Your task to perform on an android device: change text size in settings app Image 0: 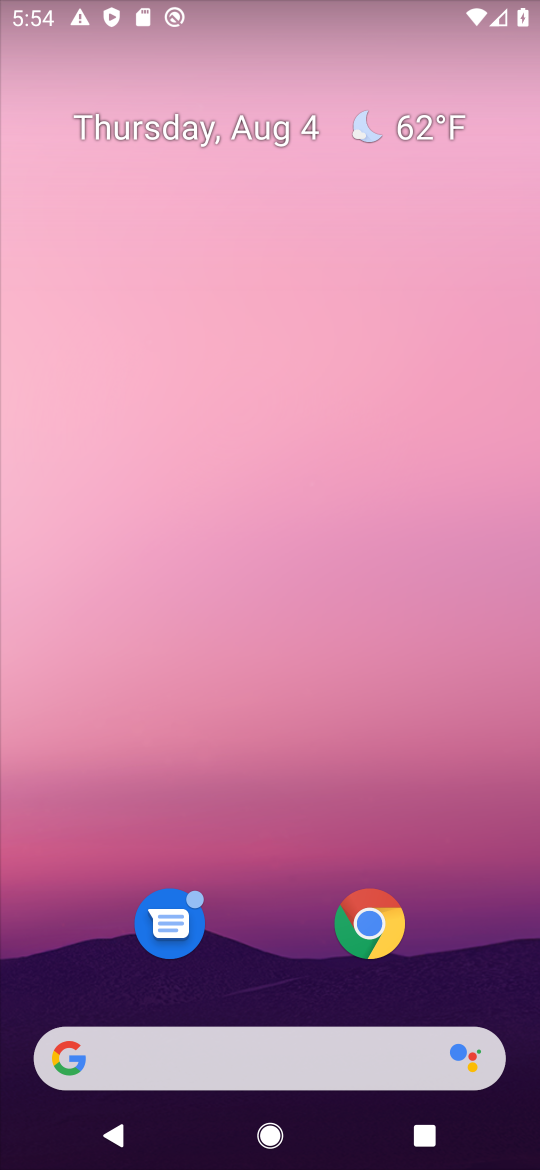
Step 0: drag from (506, 961) to (390, 461)
Your task to perform on an android device: change text size in settings app Image 1: 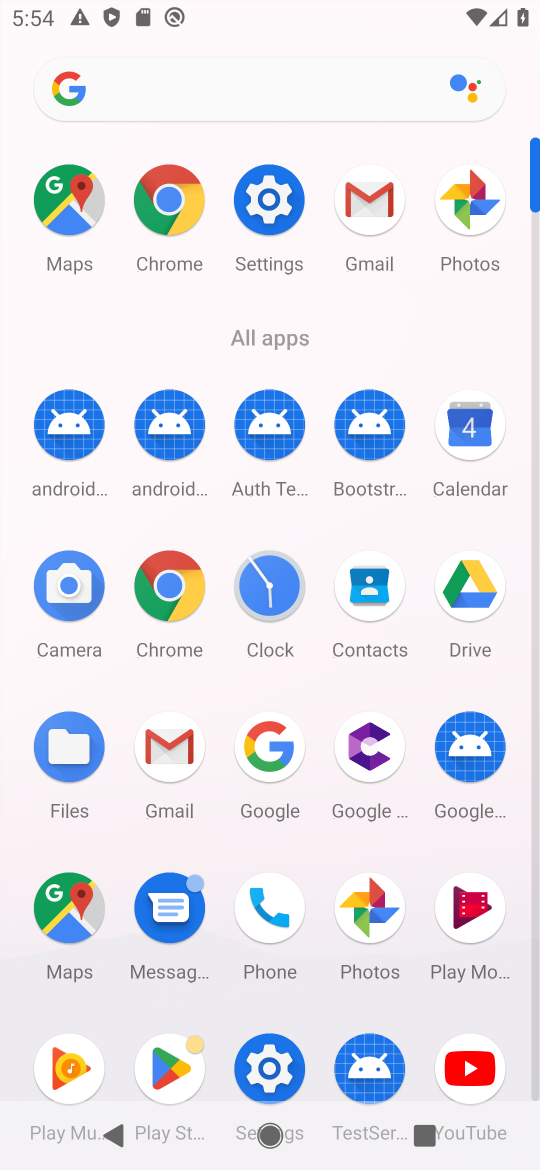
Step 1: click (285, 1058)
Your task to perform on an android device: change text size in settings app Image 2: 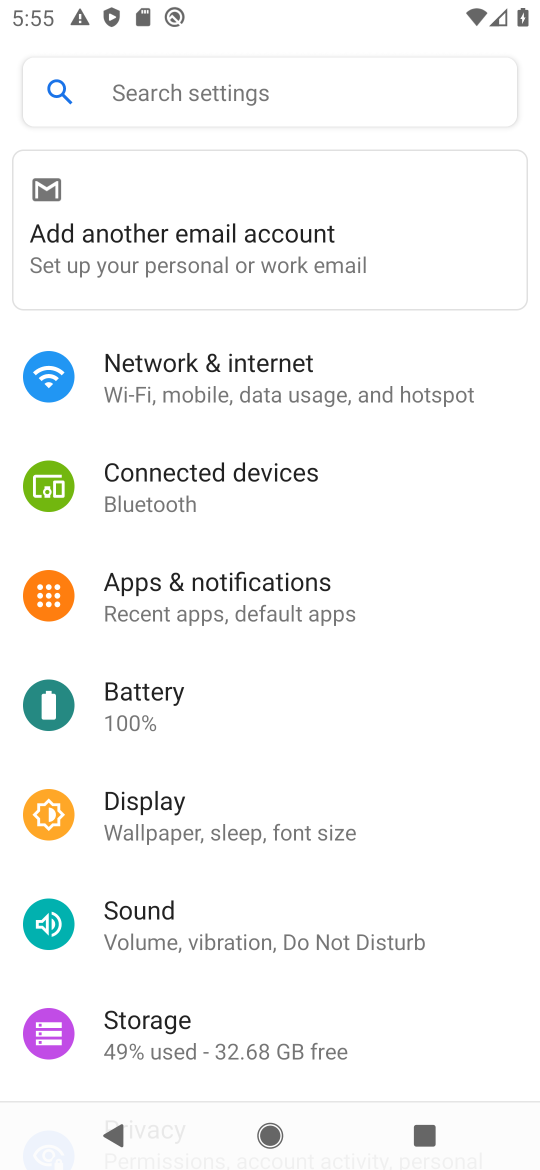
Step 2: click (215, 806)
Your task to perform on an android device: change text size in settings app Image 3: 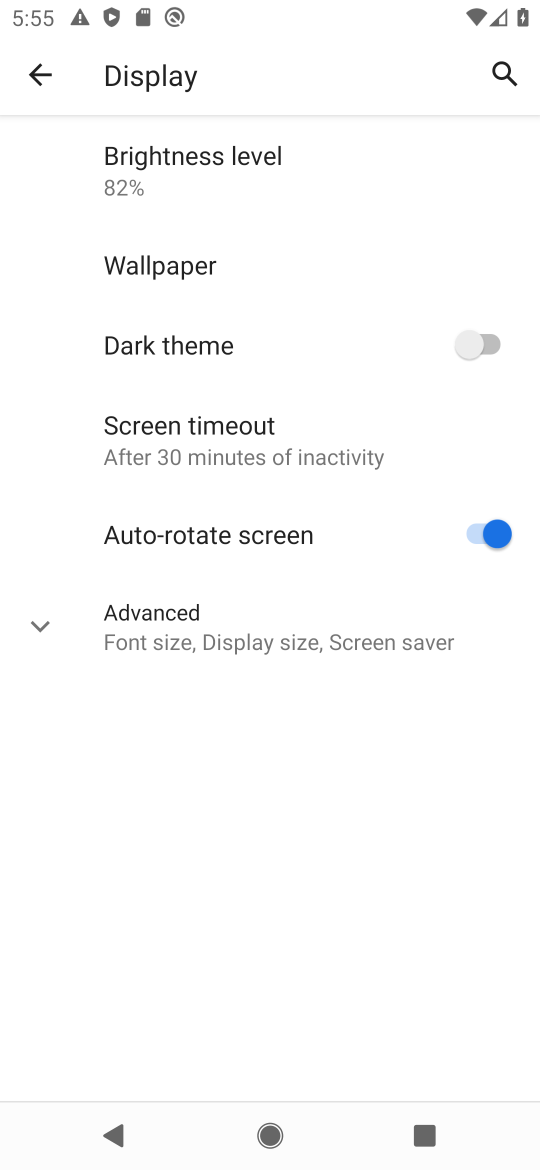
Step 3: click (306, 624)
Your task to perform on an android device: change text size in settings app Image 4: 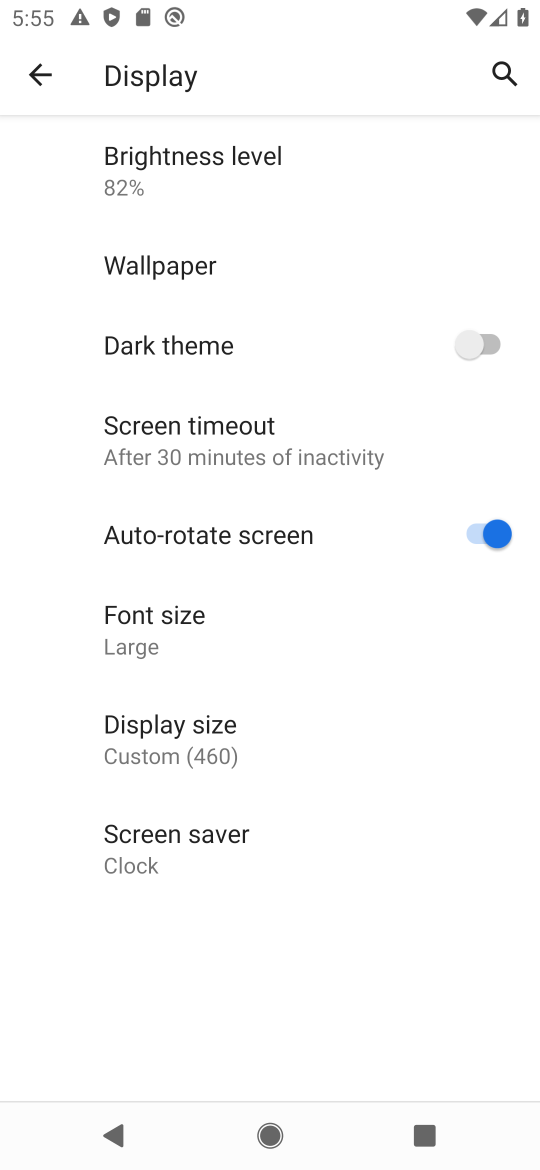
Step 4: click (213, 632)
Your task to perform on an android device: change text size in settings app Image 5: 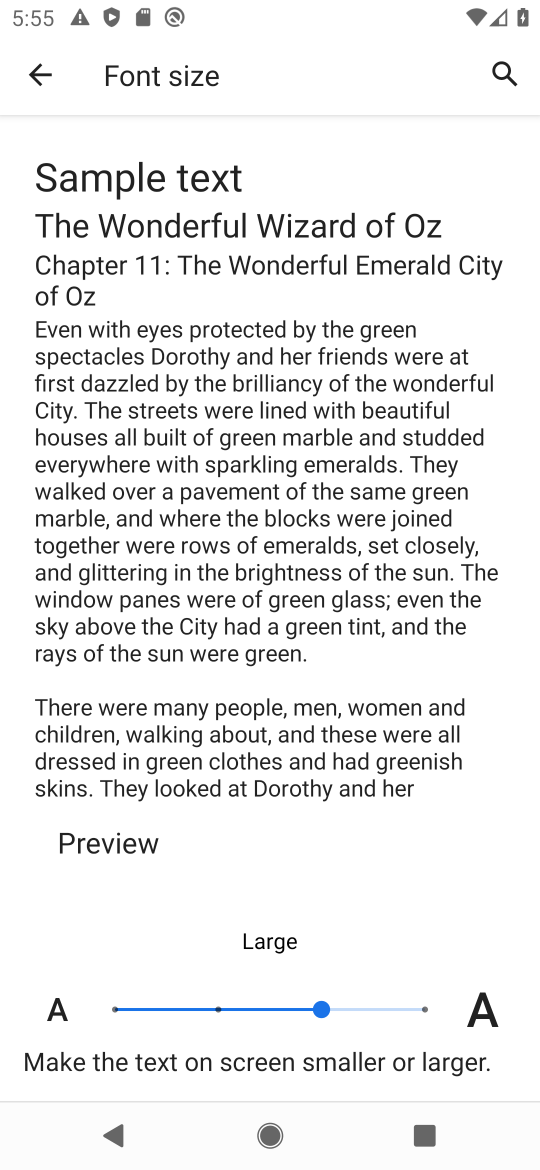
Step 5: task complete